Your task to perform on an android device: Go to privacy settings Image 0: 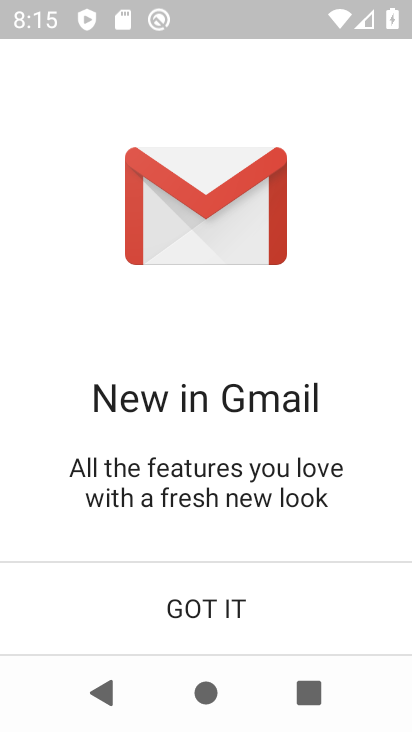
Step 0: click (207, 615)
Your task to perform on an android device: Go to privacy settings Image 1: 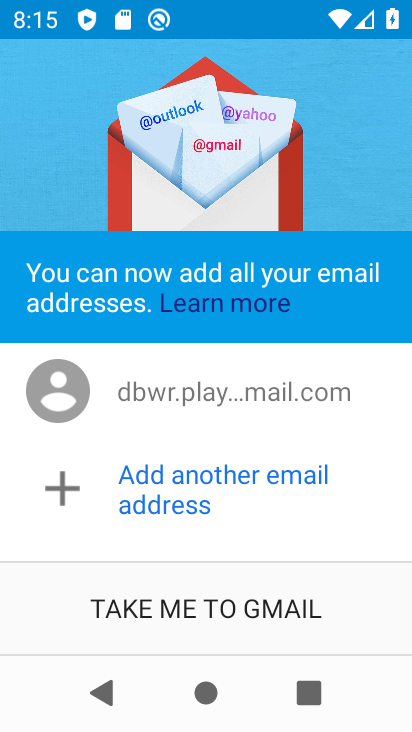
Step 1: click (217, 604)
Your task to perform on an android device: Go to privacy settings Image 2: 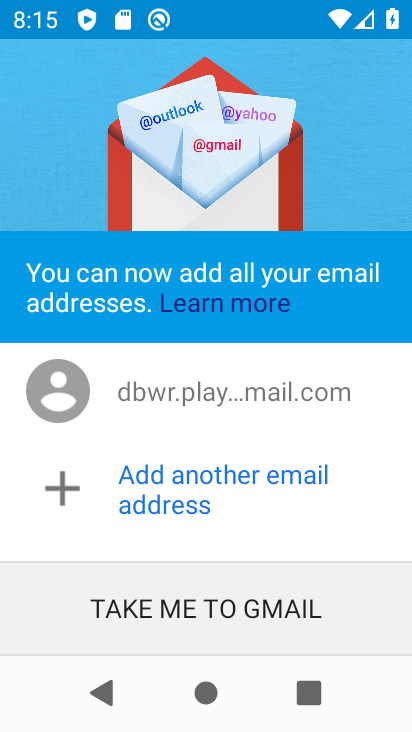
Step 2: click (217, 604)
Your task to perform on an android device: Go to privacy settings Image 3: 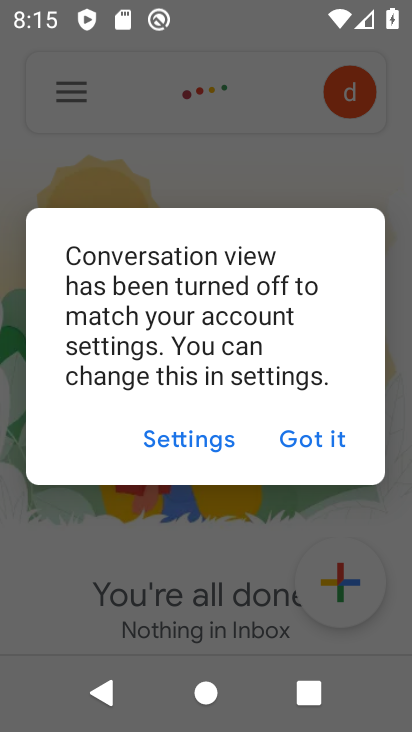
Step 3: click (314, 441)
Your task to perform on an android device: Go to privacy settings Image 4: 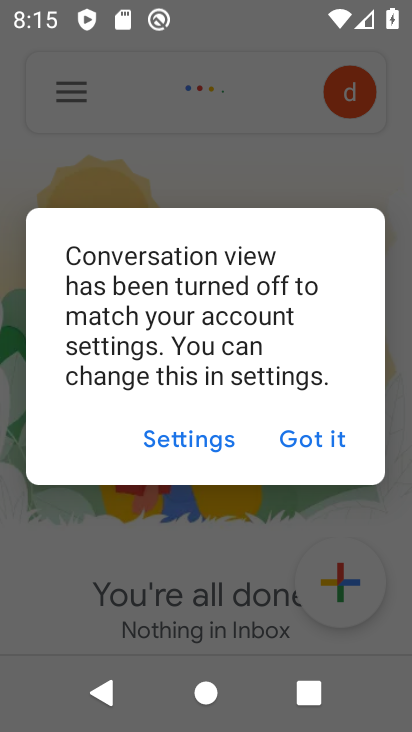
Step 4: click (314, 441)
Your task to perform on an android device: Go to privacy settings Image 5: 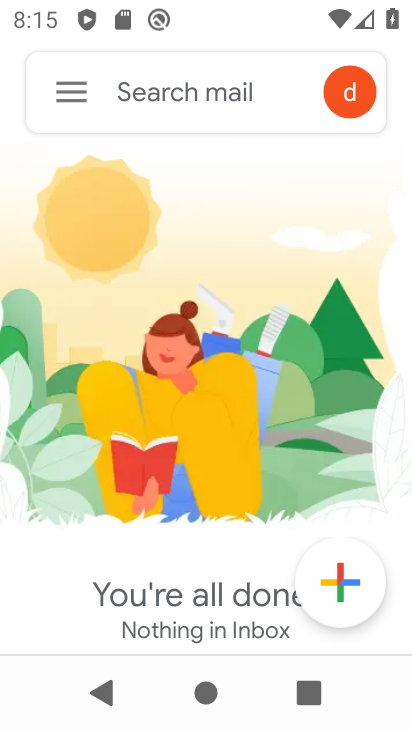
Step 5: drag from (246, 430) to (93, 77)
Your task to perform on an android device: Go to privacy settings Image 6: 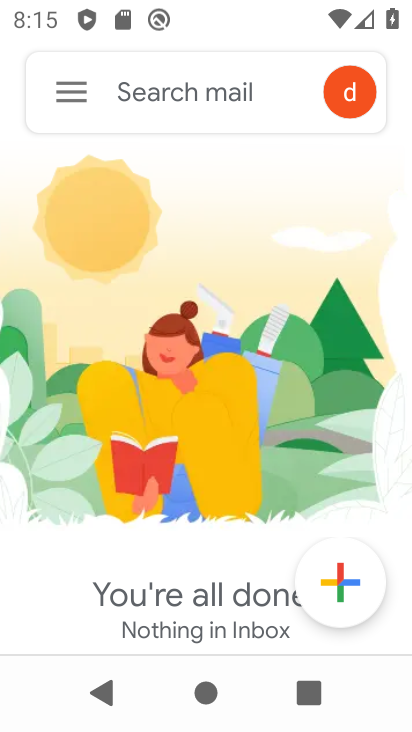
Step 6: drag from (217, 596) to (101, 21)
Your task to perform on an android device: Go to privacy settings Image 7: 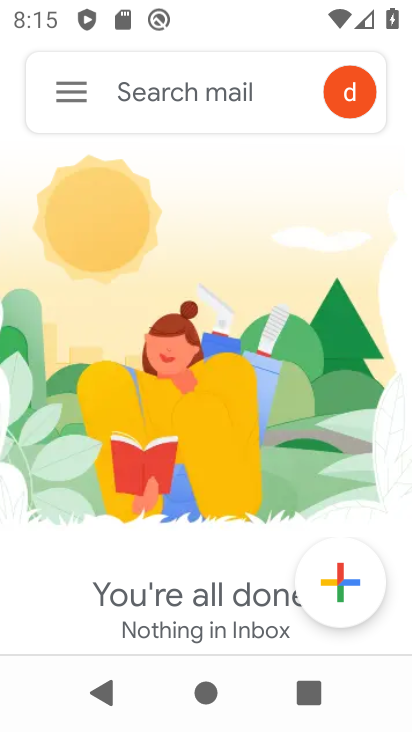
Step 7: drag from (220, 528) to (84, 102)
Your task to perform on an android device: Go to privacy settings Image 8: 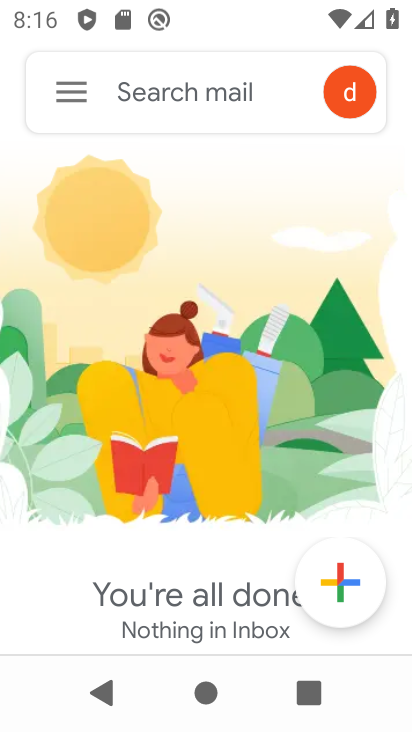
Step 8: drag from (213, 506) to (152, 140)
Your task to perform on an android device: Go to privacy settings Image 9: 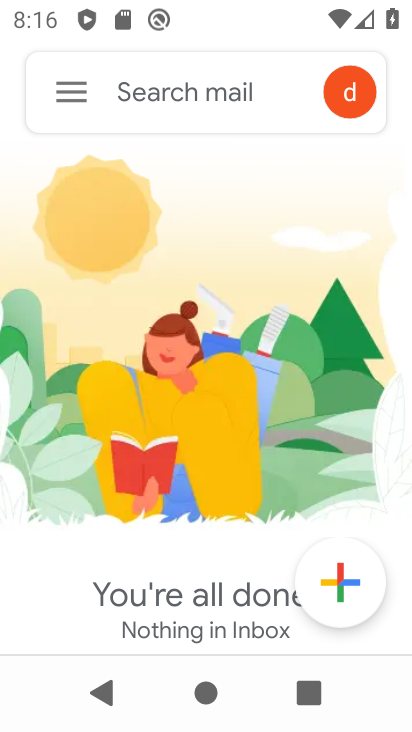
Step 9: drag from (207, 476) to (178, 114)
Your task to perform on an android device: Go to privacy settings Image 10: 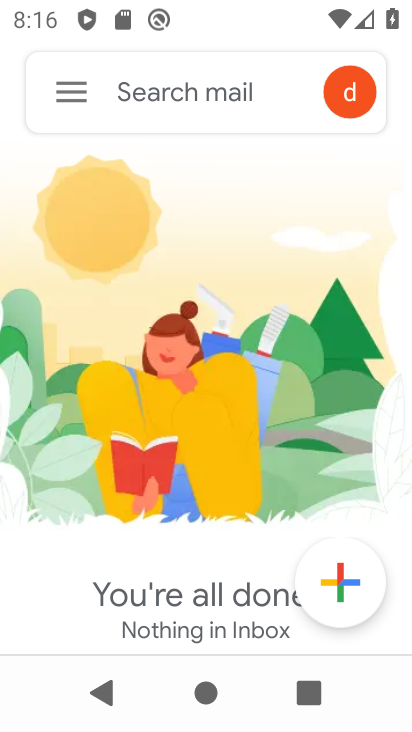
Step 10: drag from (214, 489) to (186, 153)
Your task to perform on an android device: Go to privacy settings Image 11: 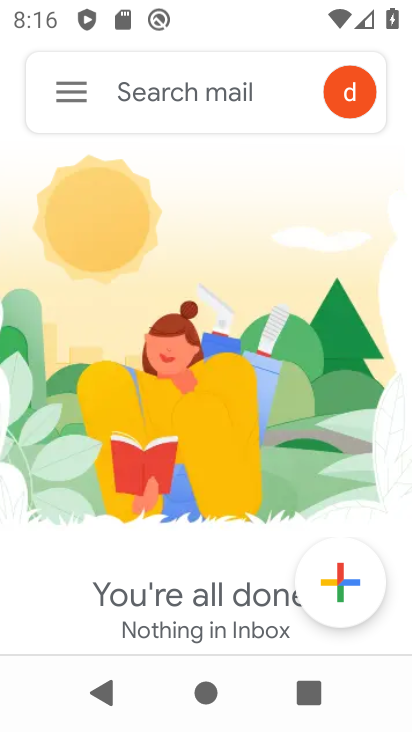
Step 11: drag from (207, 567) to (114, 89)
Your task to perform on an android device: Go to privacy settings Image 12: 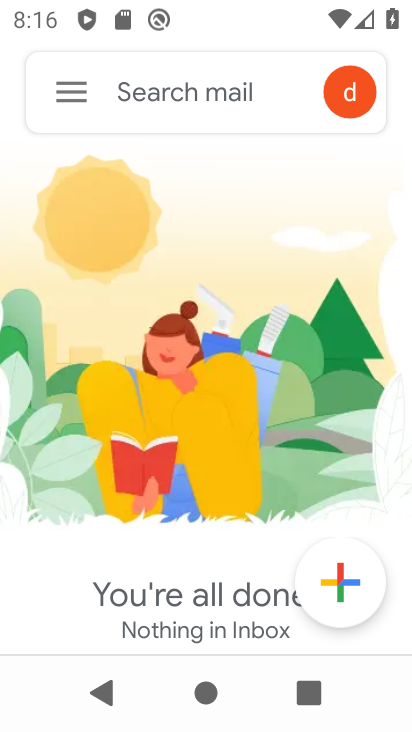
Step 12: drag from (134, 439) to (95, 116)
Your task to perform on an android device: Go to privacy settings Image 13: 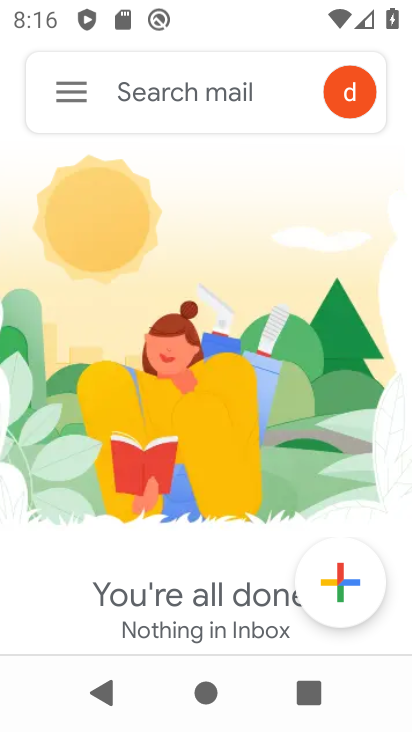
Step 13: drag from (161, 538) to (210, 40)
Your task to perform on an android device: Go to privacy settings Image 14: 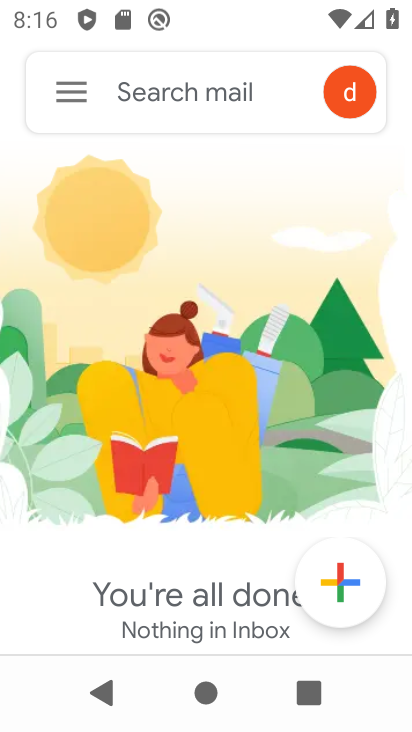
Step 14: drag from (285, 523) to (93, 1)
Your task to perform on an android device: Go to privacy settings Image 15: 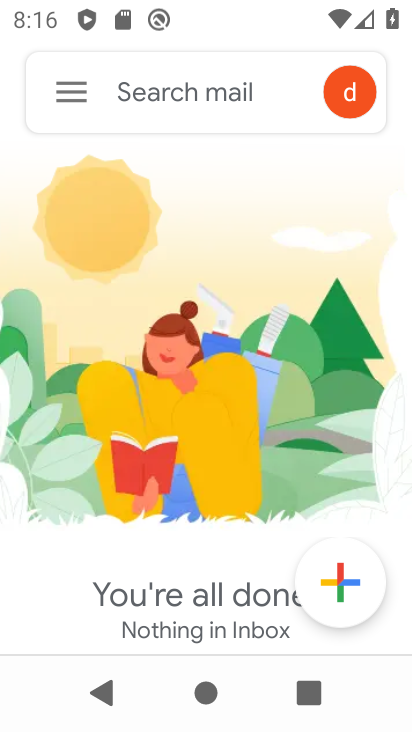
Step 15: drag from (127, 472) to (132, 24)
Your task to perform on an android device: Go to privacy settings Image 16: 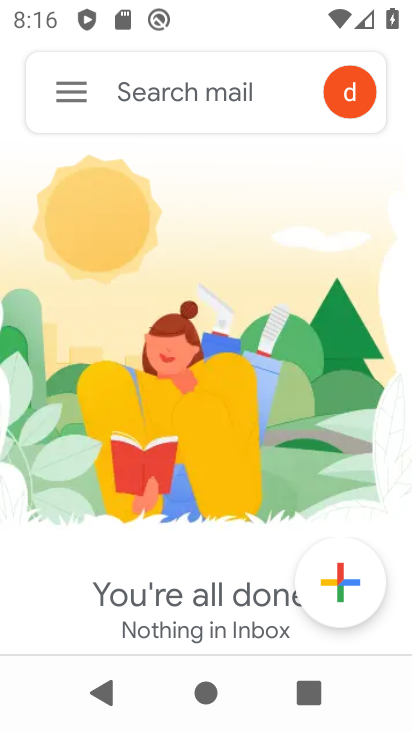
Step 16: drag from (176, 370) to (184, 32)
Your task to perform on an android device: Go to privacy settings Image 17: 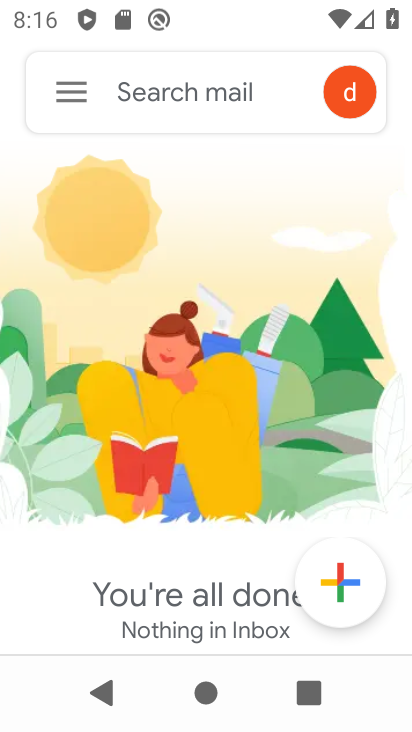
Step 17: drag from (222, 353) to (222, 6)
Your task to perform on an android device: Go to privacy settings Image 18: 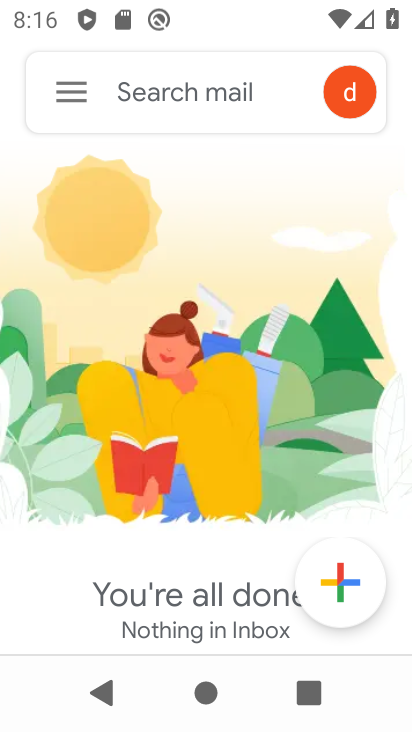
Step 18: drag from (204, 449) to (172, 111)
Your task to perform on an android device: Go to privacy settings Image 19: 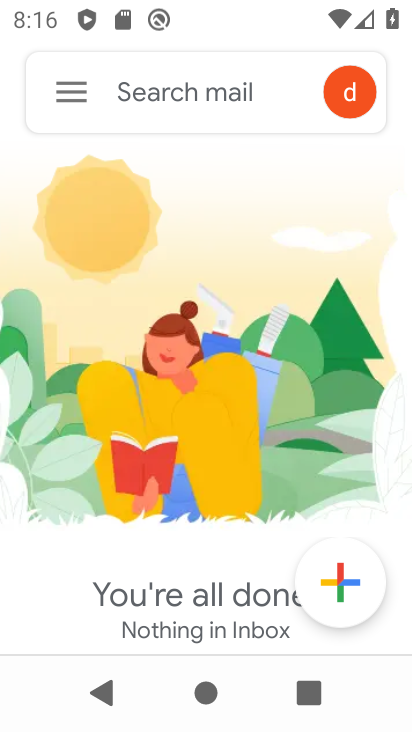
Step 19: drag from (212, 534) to (182, 133)
Your task to perform on an android device: Go to privacy settings Image 20: 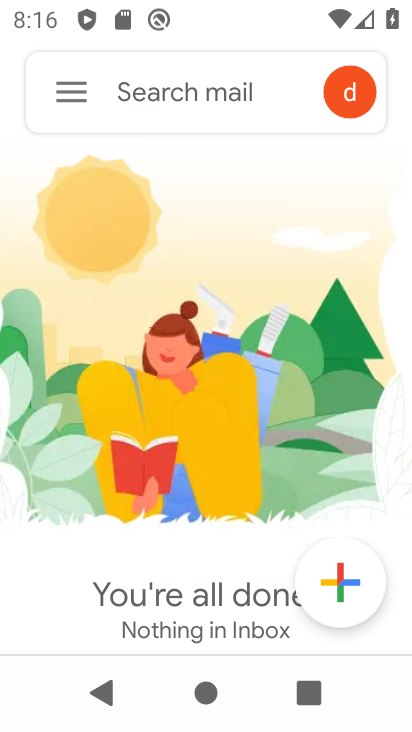
Step 20: drag from (226, 483) to (122, 24)
Your task to perform on an android device: Go to privacy settings Image 21: 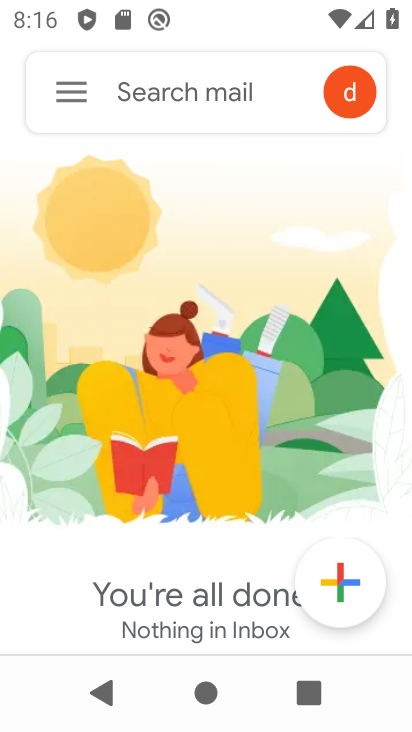
Step 21: drag from (217, 427) to (188, 50)
Your task to perform on an android device: Go to privacy settings Image 22: 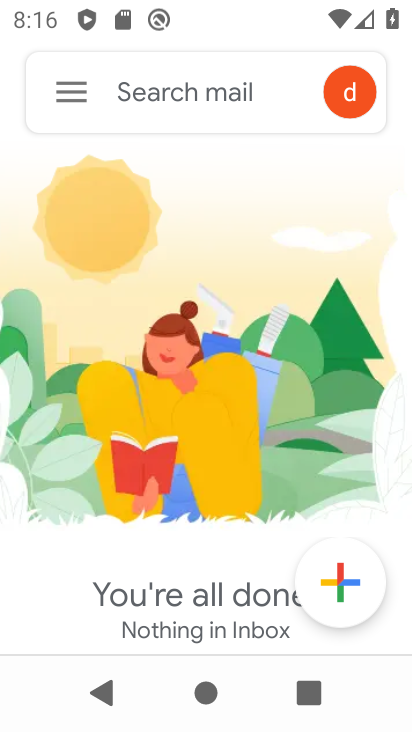
Step 22: drag from (163, 277) to (130, 16)
Your task to perform on an android device: Go to privacy settings Image 23: 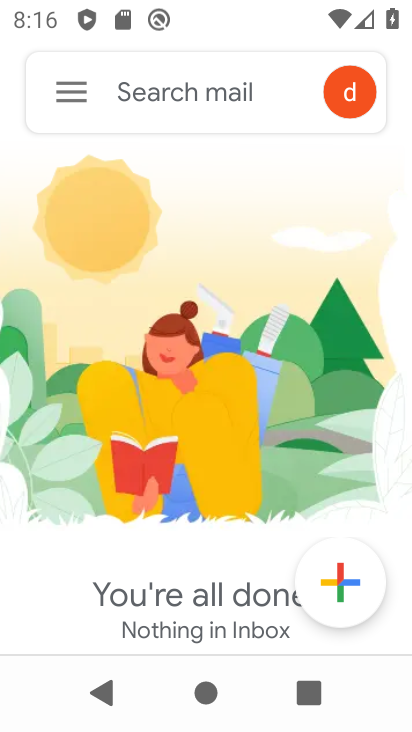
Step 23: drag from (224, 609) to (146, 176)
Your task to perform on an android device: Go to privacy settings Image 24: 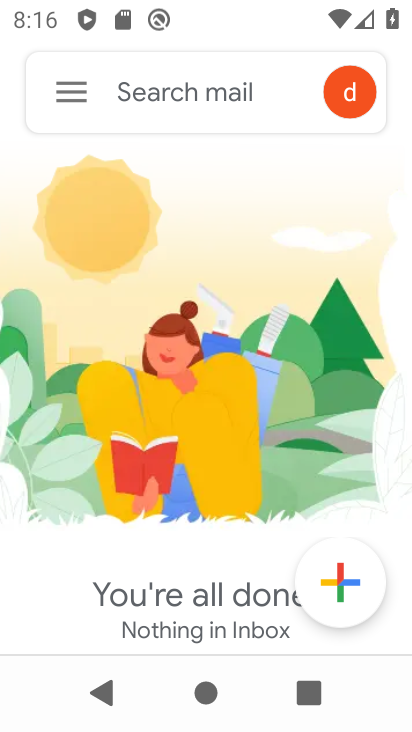
Step 24: drag from (209, 440) to (180, 129)
Your task to perform on an android device: Go to privacy settings Image 25: 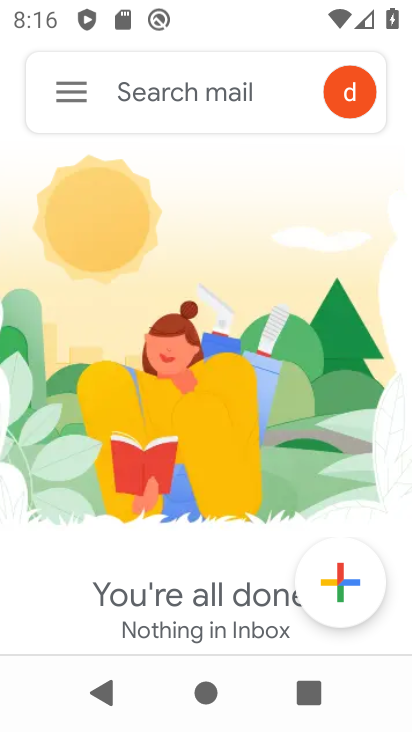
Step 25: drag from (194, 128) to (194, 22)
Your task to perform on an android device: Go to privacy settings Image 26: 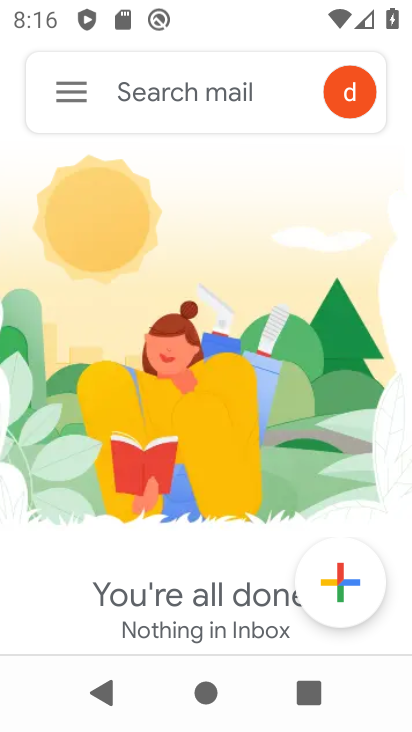
Step 26: press home button
Your task to perform on an android device: Go to privacy settings Image 27: 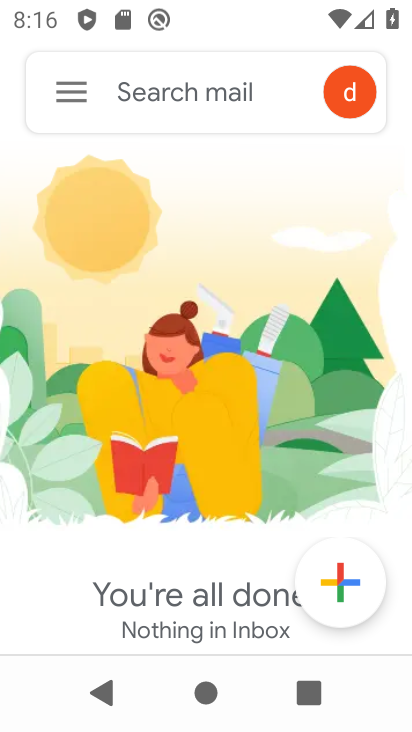
Step 27: press home button
Your task to perform on an android device: Go to privacy settings Image 28: 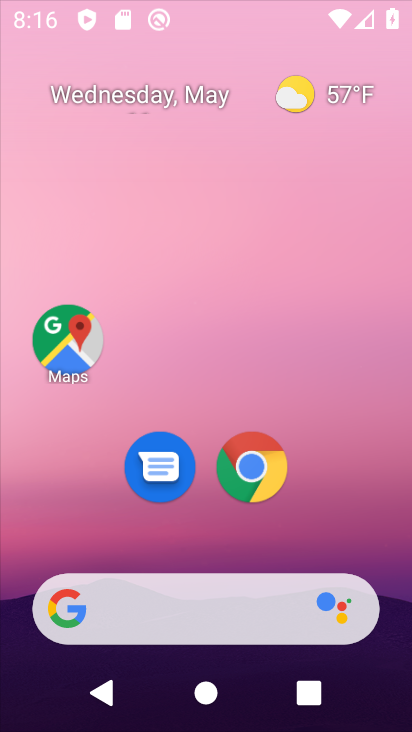
Step 28: press home button
Your task to perform on an android device: Go to privacy settings Image 29: 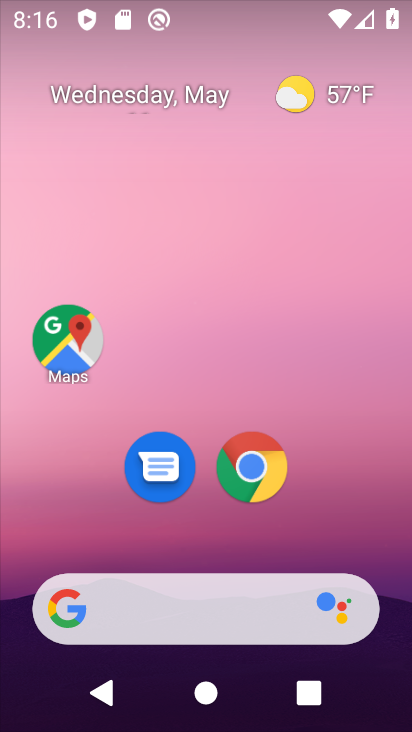
Step 29: drag from (349, 472) to (100, 59)
Your task to perform on an android device: Go to privacy settings Image 30: 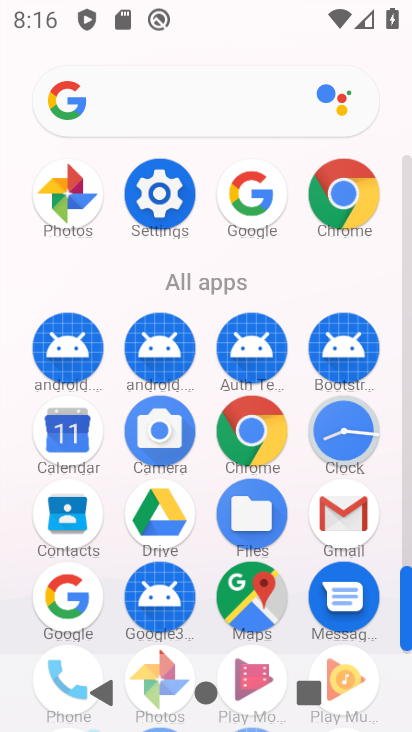
Step 30: drag from (297, 495) to (127, 16)
Your task to perform on an android device: Go to privacy settings Image 31: 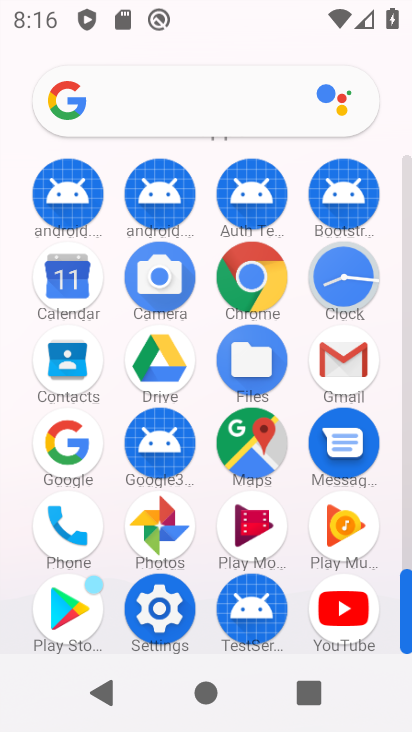
Step 31: click (253, 277)
Your task to perform on an android device: Go to privacy settings Image 32: 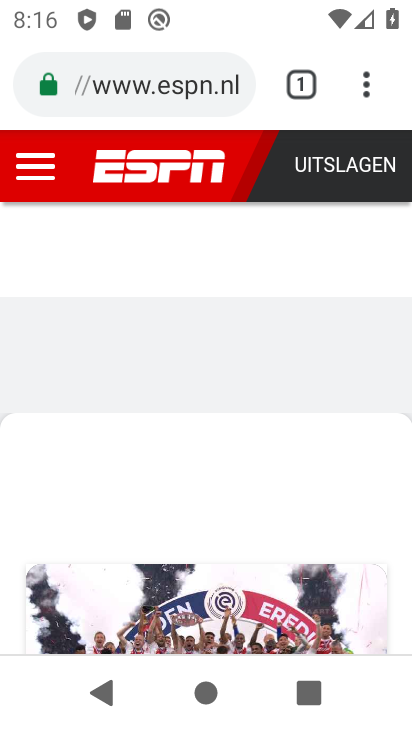
Step 32: drag from (367, 94) to (102, 545)
Your task to perform on an android device: Go to privacy settings Image 33: 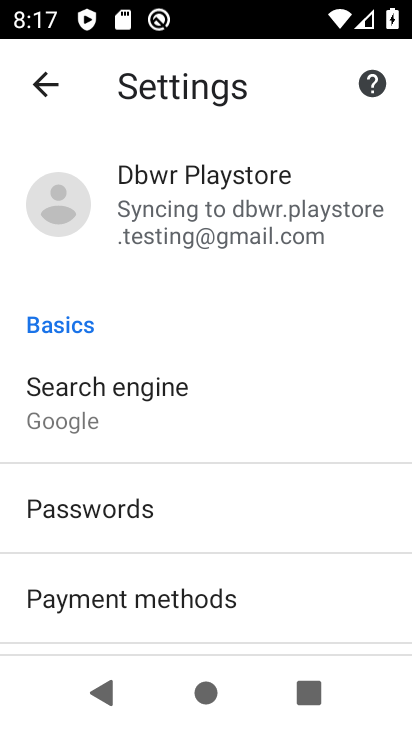
Step 33: drag from (88, 569) to (29, 98)
Your task to perform on an android device: Go to privacy settings Image 34: 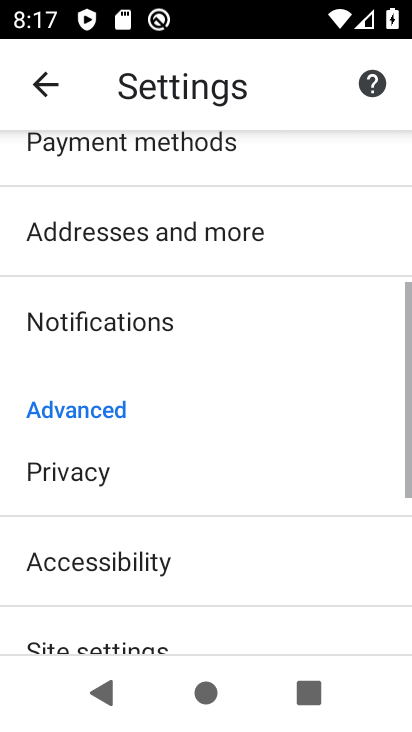
Step 34: drag from (166, 513) to (187, 77)
Your task to perform on an android device: Go to privacy settings Image 35: 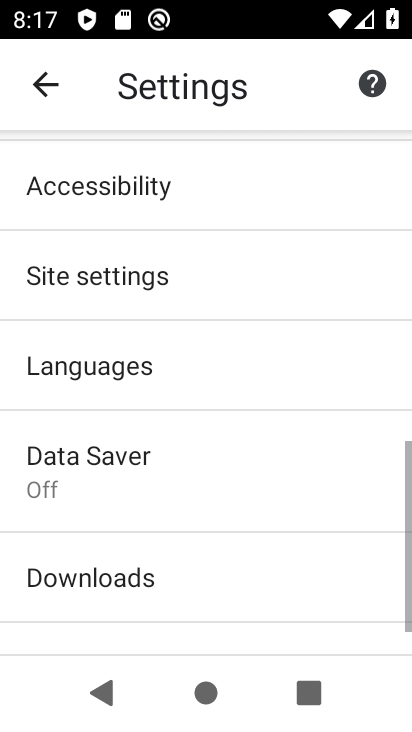
Step 35: drag from (192, 413) to (120, 64)
Your task to perform on an android device: Go to privacy settings Image 36: 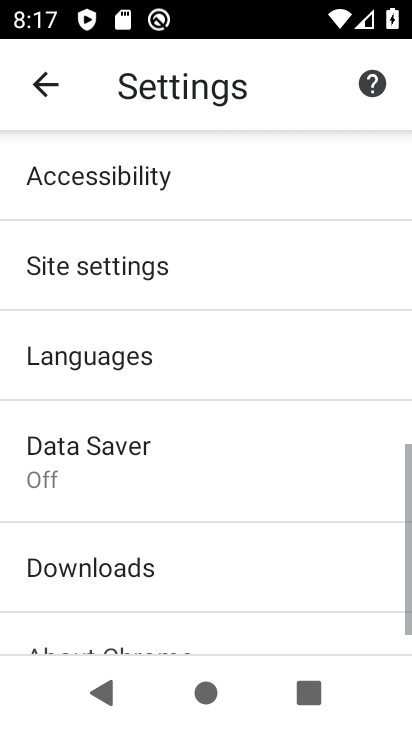
Step 36: drag from (122, 404) to (78, 114)
Your task to perform on an android device: Go to privacy settings Image 37: 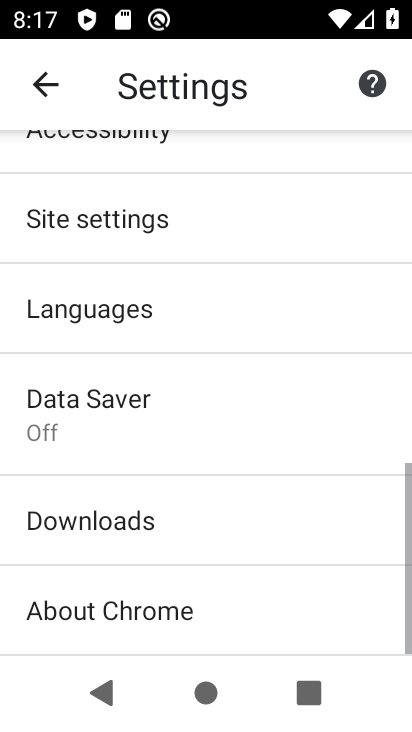
Step 37: drag from (78, 205) to (124, 543)
Your task to perform on an android device: Go to privacy settings Image 38: 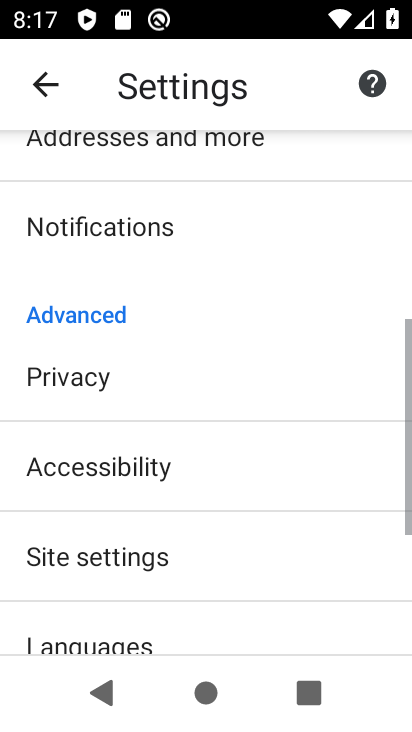
Step 38: drag from (111, 249) to (201, 652)
Your task to perform on an android device: Go to privacy settings Image 39: 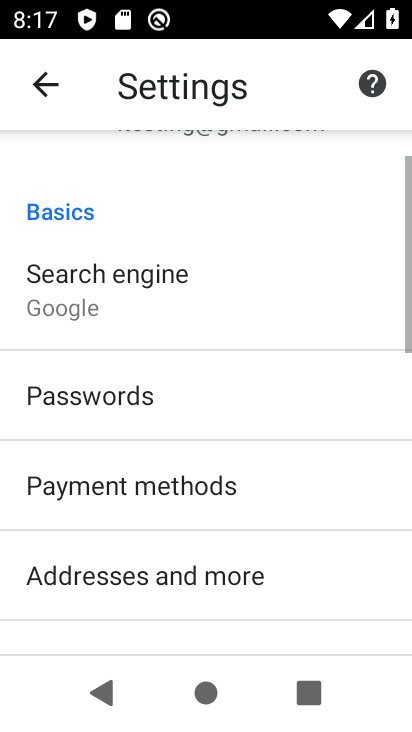
Step 39: drag from (89, 252) to (172, 609)
Your task to perform on an android device: Go to privacy settings Image 40: 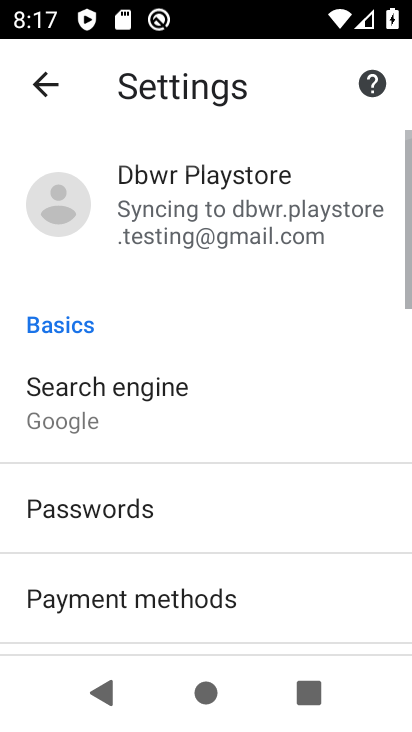
Step 40: drag from (108, 163) to (180, 618)
Your task to perform on an android device: Go to privacy settings Image 41: 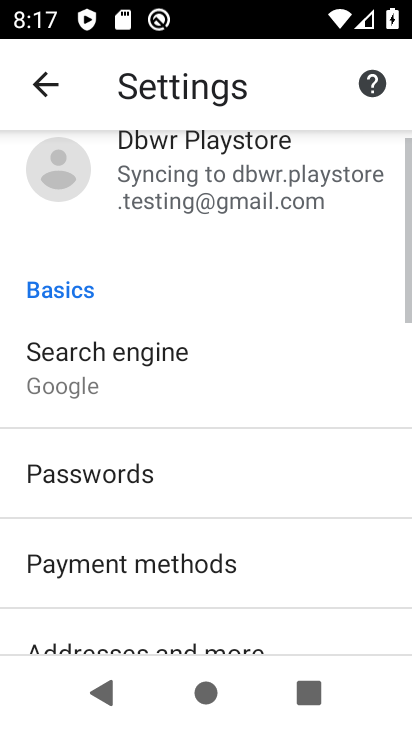
Step 41: drag from (152, 473) to (180, 21)
Your task to perform on an android device: Go to privacy settings Image 42: 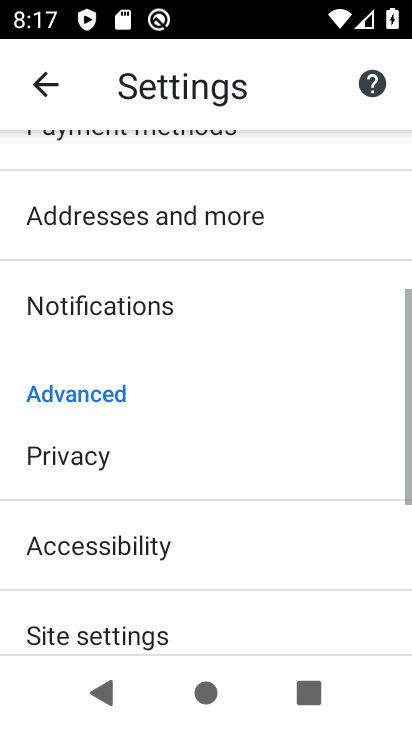
Step 42: drag from (190, 450) to (176, 84)
Your task to perform on an android device: Go to privacy settings Image 43: 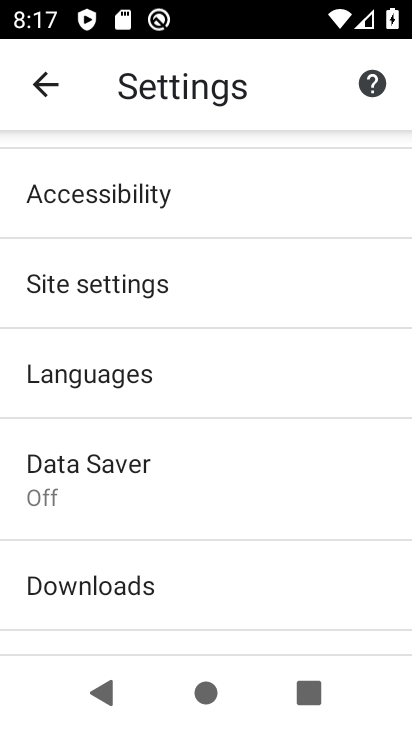
Step 43: drag from (101, 473) to (130, 172)
Your task to perform on an android device: Go to privacy settings Image 44: 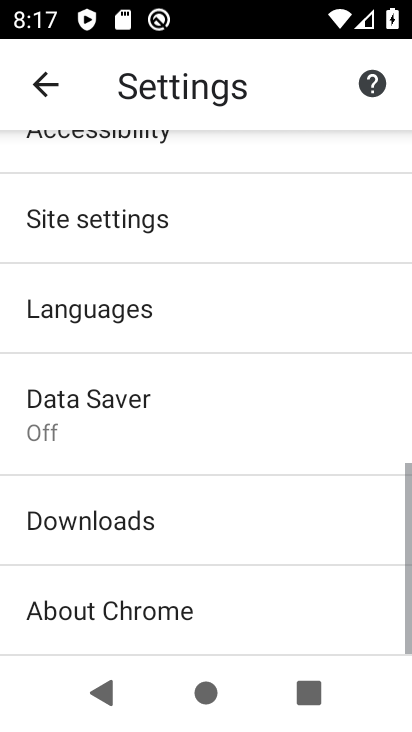
Step 44: drag from (95, 243) to (164, 598)
Your task to perform on an android device: Go to privacy settings Image 45: 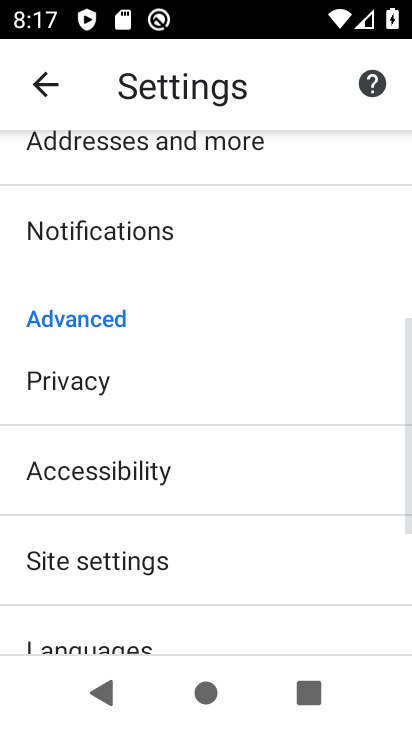
Step 45: click (149, 404)
Your task to perform on an android device: Go to privacy settings Image 46: 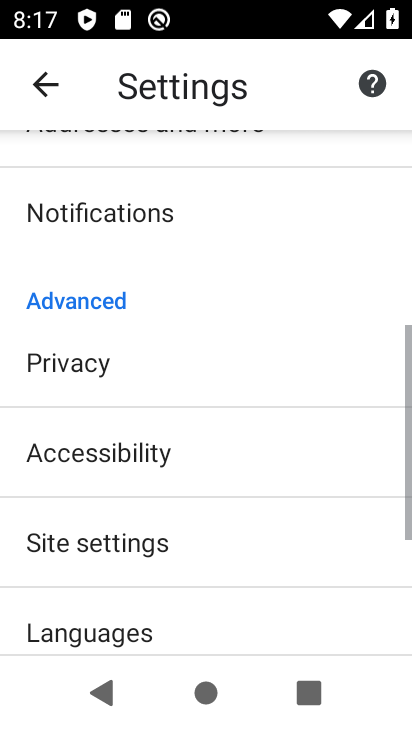
Step 46: drag from (191, 493) to (227, 662)
Your task to perform on an android device: Go to privacy settings Image 47: 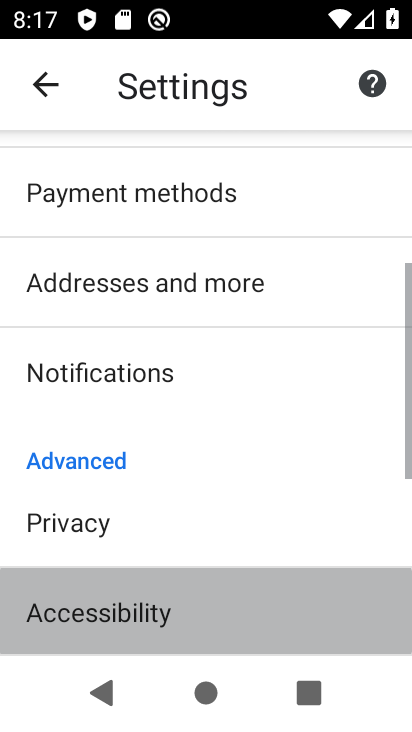
Step 47: drag from (155, 276) to (326, 597)
Your task to perform on an android device: Go to privacy settings Image 48: 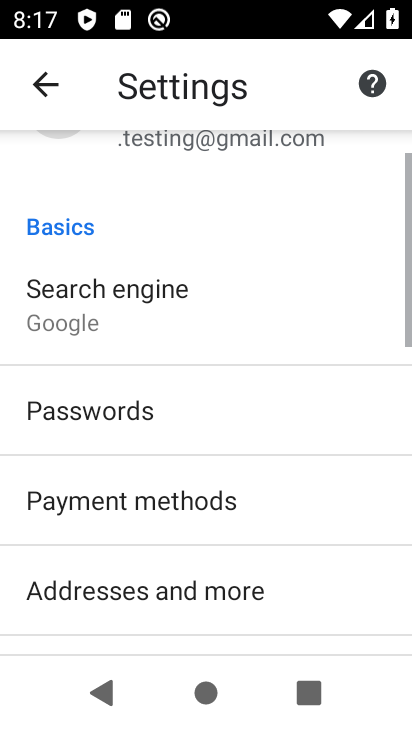
Step 48: drag from (155, 142) to (174, 534)
Your task to perform on an android device: Go to privacy settings Image 49: 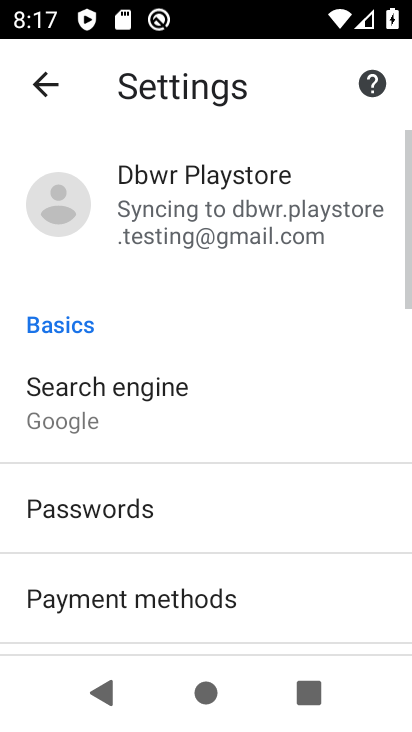
Step 49: click (44, 72)
Your task to perform on an android device: Go to privacy settings Image 50: 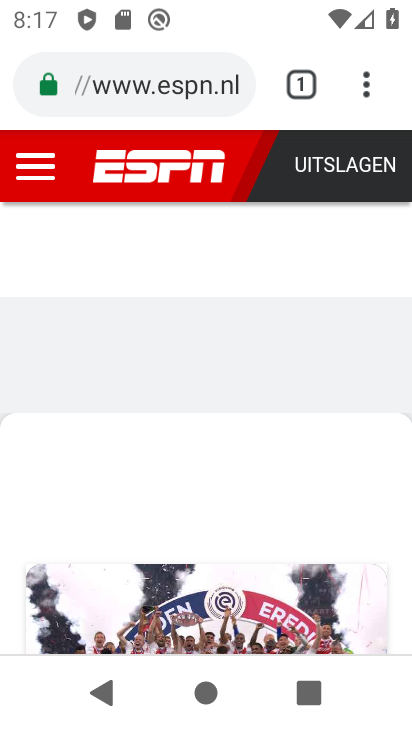
Step 50: click (371, 74)
Your task to perform on an android device: Go to privacy settings Image 51: 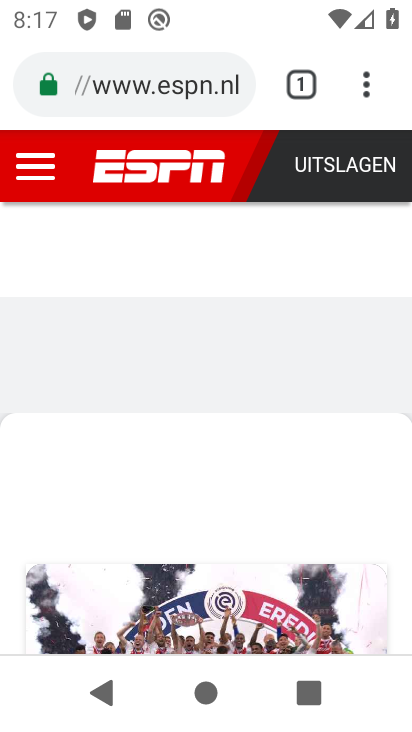
Step 51: click (357, 64)
Your task to perform on an android device: Go to privacy settings Image 52: 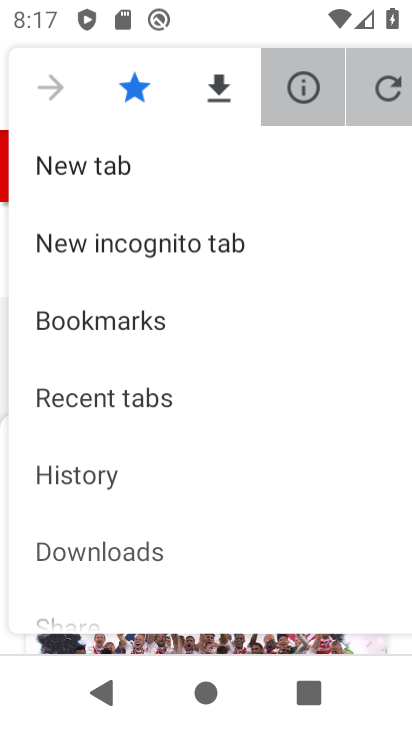
Step 52: drag from (368, 81) to (194, 375)
Your task to perform on an android device: Go to privacy settings Image 53: 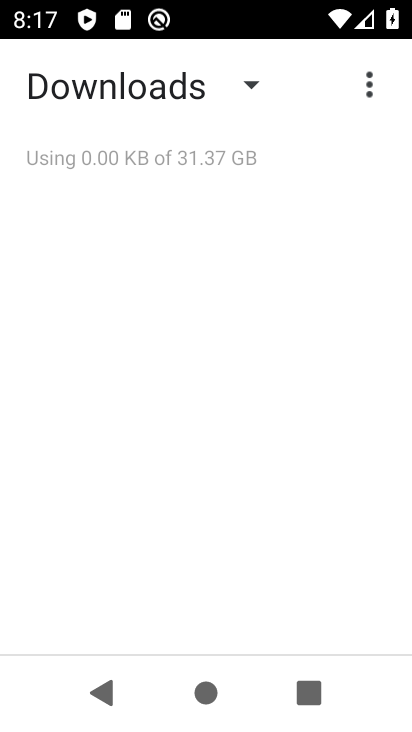
Step 53: press back button
Your task to perform on an android device: Go to privacy settings Image 54: 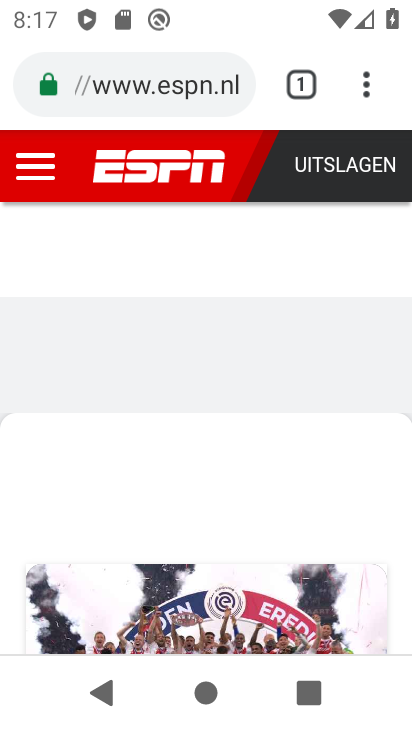
Step 54: press home button
Your task to perform on an android device: Go to privacy settings Image 55: 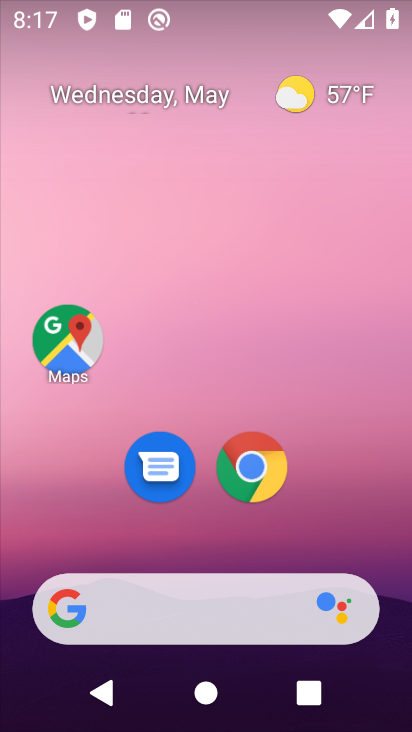
Step 55: drag from (375, 613) to (124, 12)
Your task to perform on an android device: Go to privacy settings Image 56: 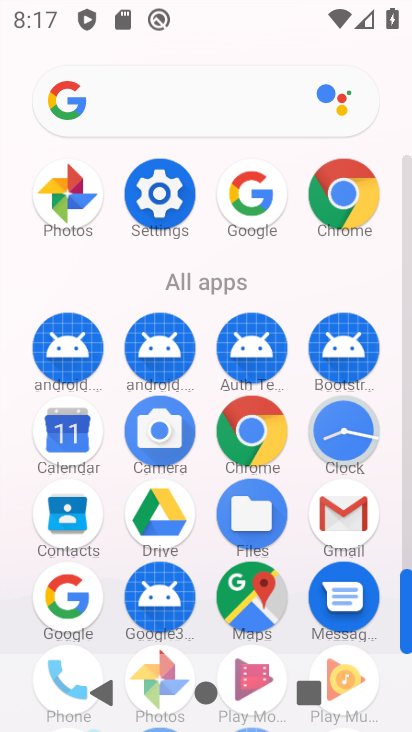
Step 56: click (168, 203)
Your task to perform on an android device: Go to privacy settings Image 57: 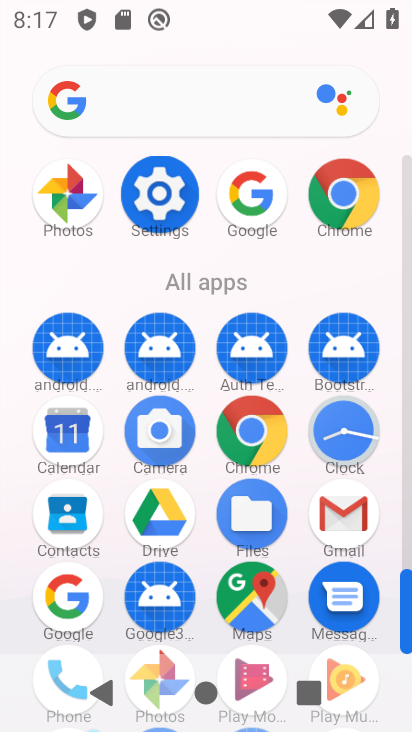
Step 57: click (167, 202)
Your task to perform on an android device: Go to privacy settings Image 58: 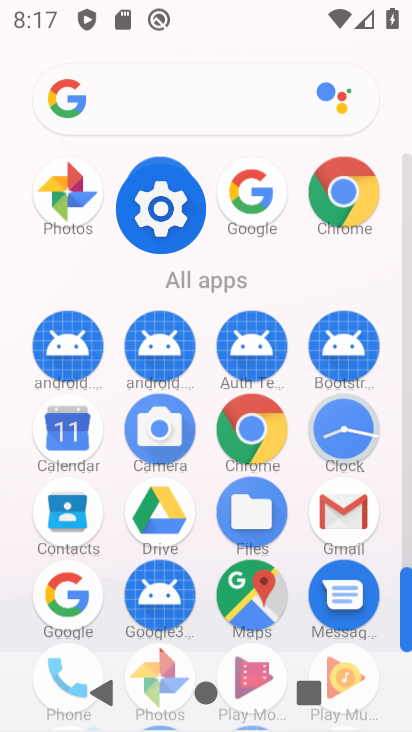
Step 58: click (167, 202)
Your task to perform on an android device: Go to privacy settings Image 59: 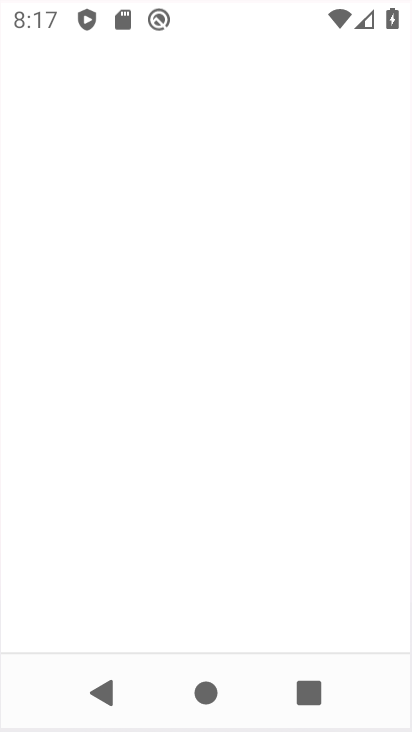
Step 59: click (167, 200)
Your task to perform on an android device: Go to privacy settings Image 60: 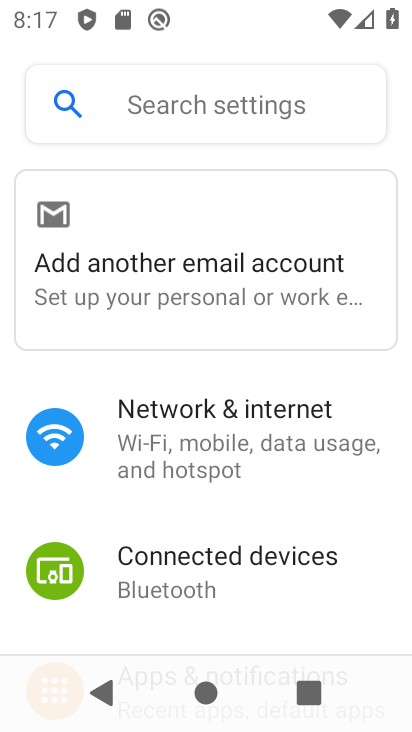
Step 60: task complete